Your task to perform on an android device: see creations saved in the google photos Image 0: 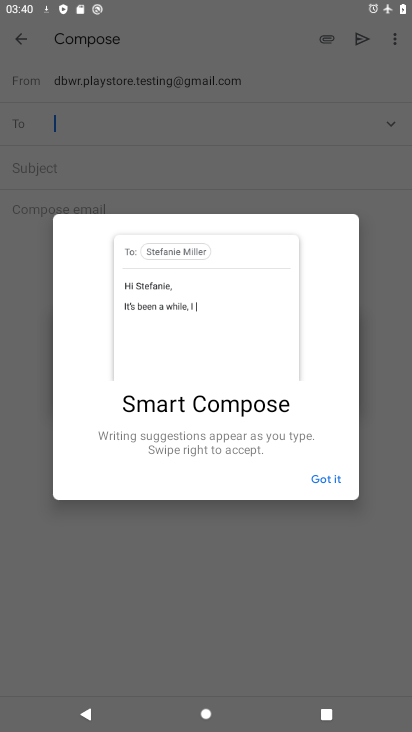
Step 0: press home button
Your task to perform on an android device: see creations saved in the google photos Image 1: 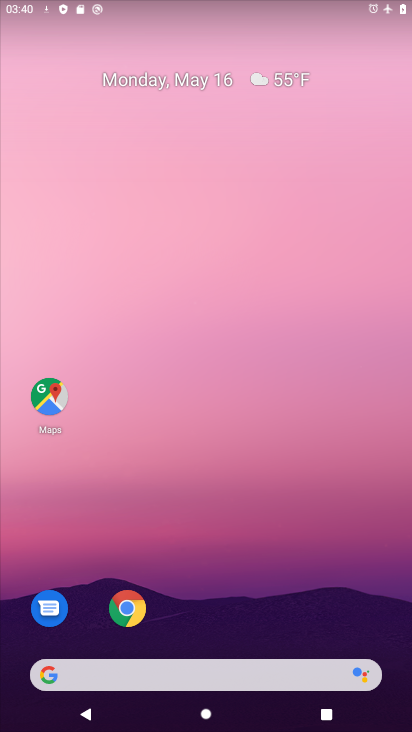
Step 1: drag from (215, 601) to (206, 218)
Your task to perform on an android device: see creations saved in the google photos Image 2: 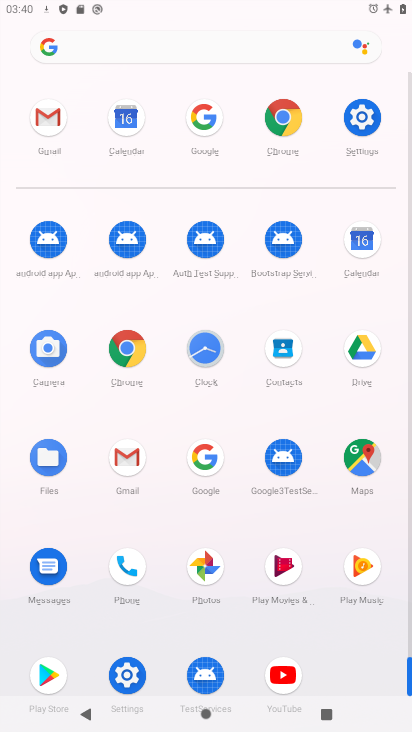
Step 2: click (202, 571)
Your task to perform on an android device: see creations saved in the google photos Image 3: 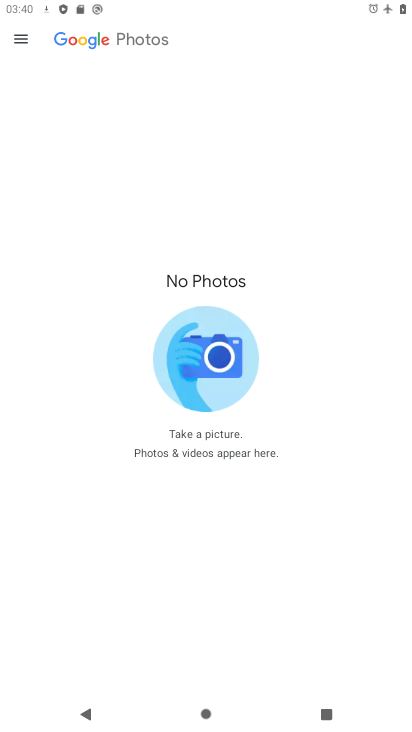
Step 3: click (171, 44)
Your task to perform on an android device: see creations saved in the google photos Image 4: 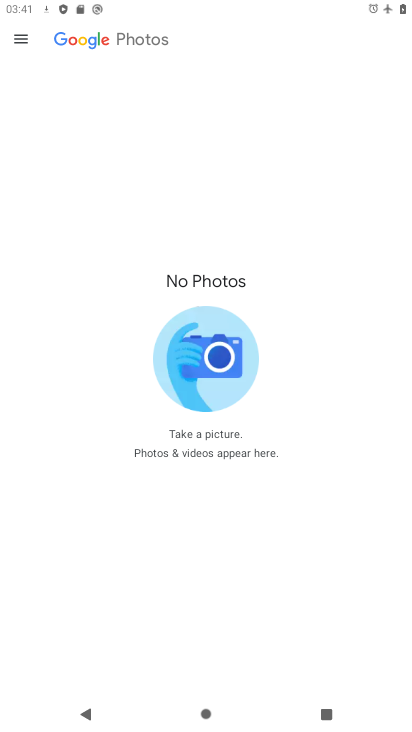
Step 4: click (30, 43)
Your task to perform on an android device: see creations saved in the google photos Image 5: 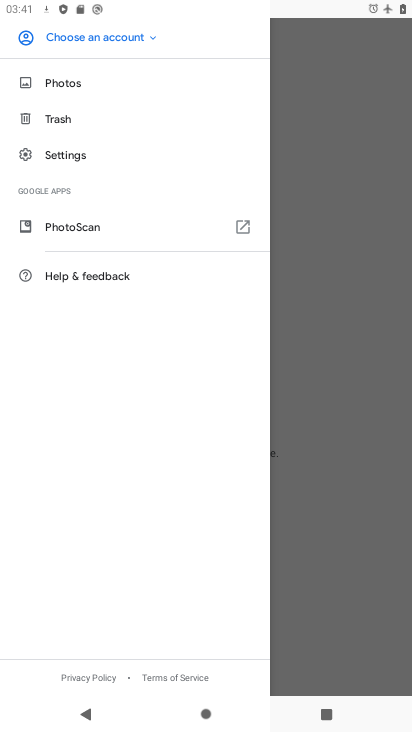
Step 5: click (302, 173)
Your task to perform on an android device: see creations saved in the google photos Image 6: 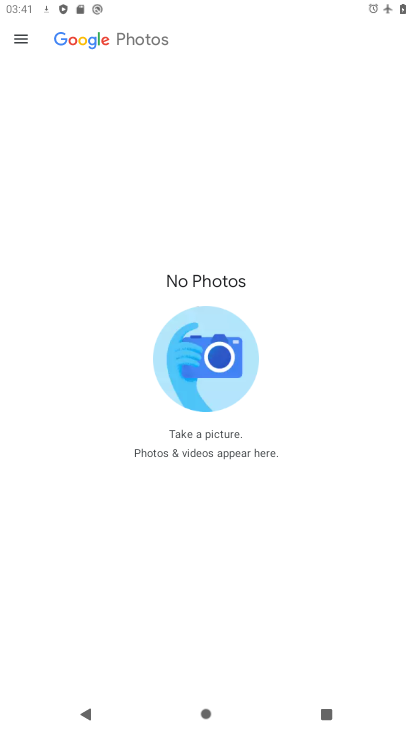
Step 6: task complete